Your task to perform on an android device: toggle show notifications on the lock screen Image 0: 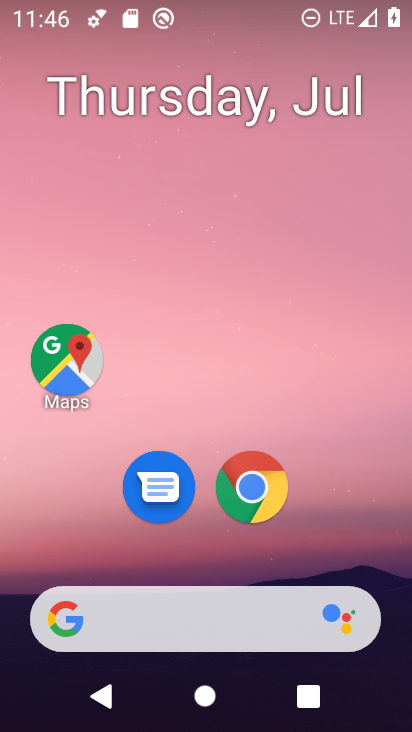
Step 0: drag from (213, 574) to (193, 196)
Your task to perform on an android device: toggle show notifications on the lock screen Image 1: 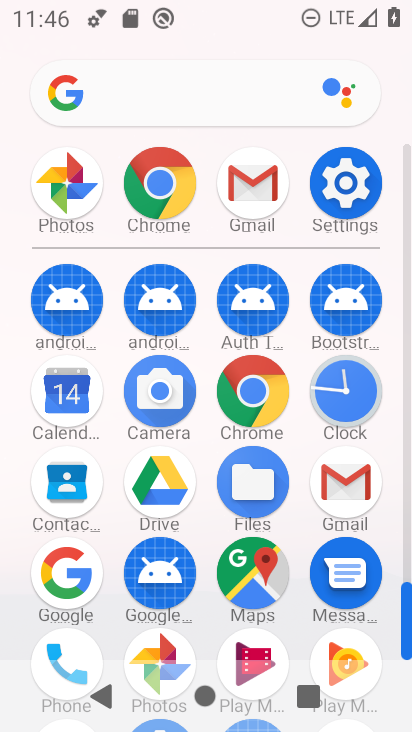
Step 1: click (357, 200)
Your task to perform on an android device: toggle show notifications on the lock screen Image 2: 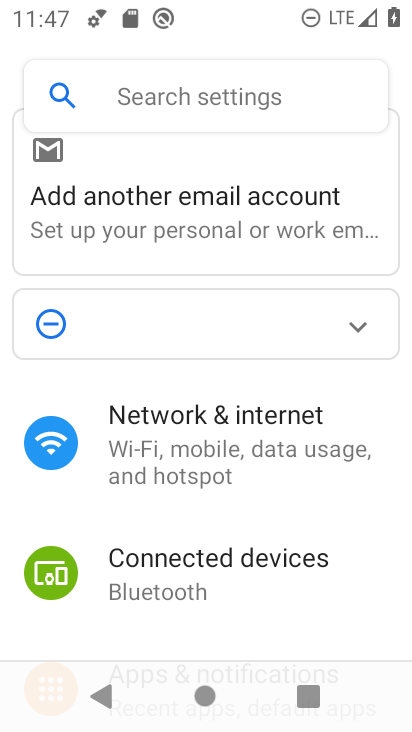
Step 2: drag from (211, 525) to (192, 196)
Your task to perform on an android device: toggle show notifications on the lock screen Image 3: 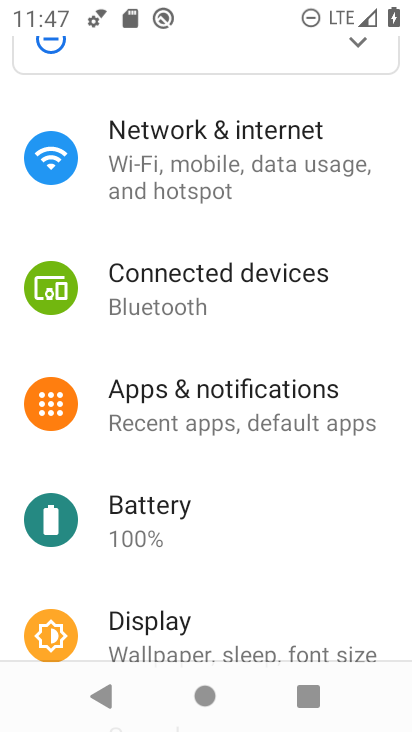
Step 3: drag from (190, 483) to (191, 445)
Your task to perform on an android device: toggle show notifications on the lock screen Image 4: 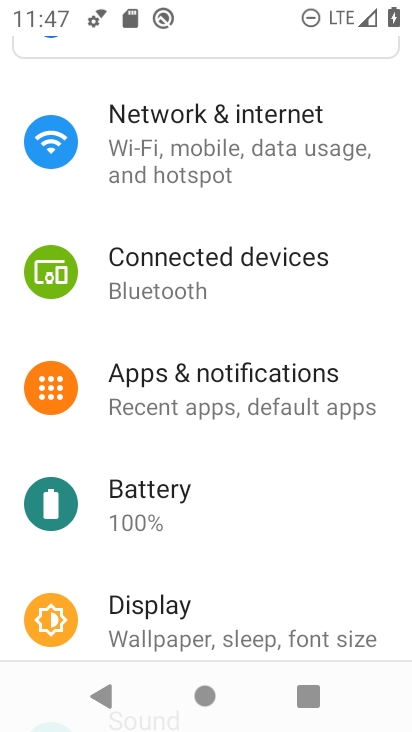
Step 4: click (234, 390)
Your task to perform on an android device: toggle show notifications on the lock screen Image 5: 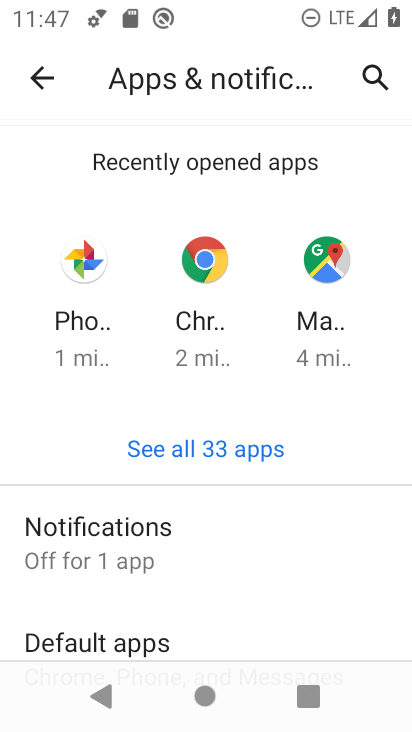
Step 5: click (137, 543)
Your task to perform on an android device: toggle show notifications on the lock screen Image 6: 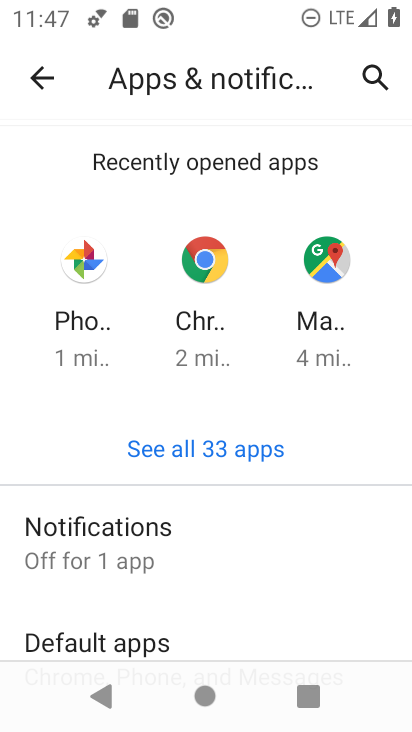
Step 6: click (135, 552)
Your task to perform on an android device: toggle show notifications on the lock screen Image 7: 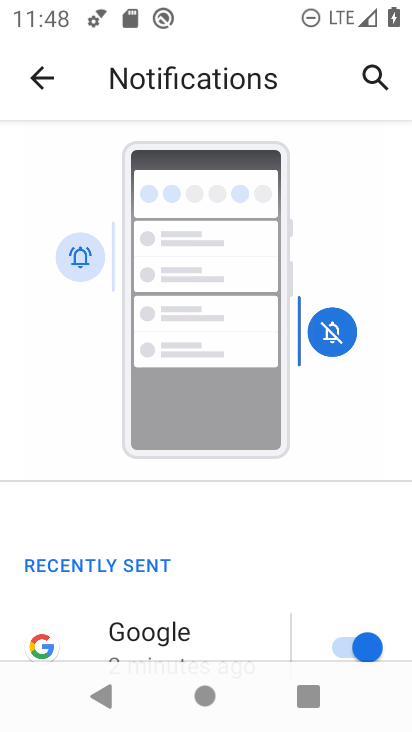
Step 7: drag from (133, 521) to (222, 79)
Your task to perform on an android device: toggle show notifications on the lock screen Image 8: 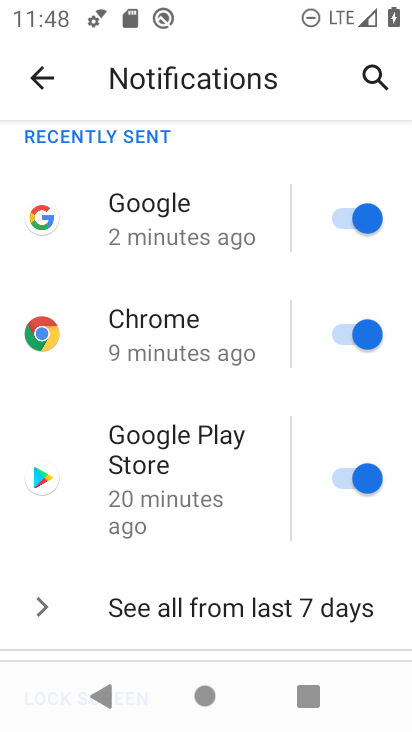
Step 8: drag from (233, 577) to (215, 228)
Your task to perform on an android device: toggle show notifications on the lock screen Image 9: 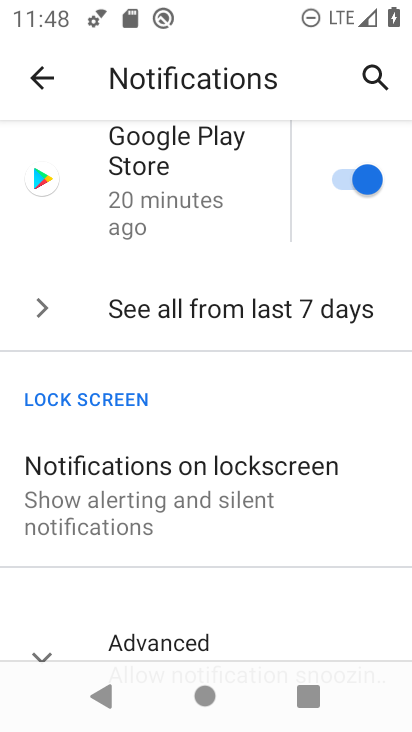
Step 9: click (241, 501)
Your task to perform on an android device: toggle show notifications on the lock screen Image 10: 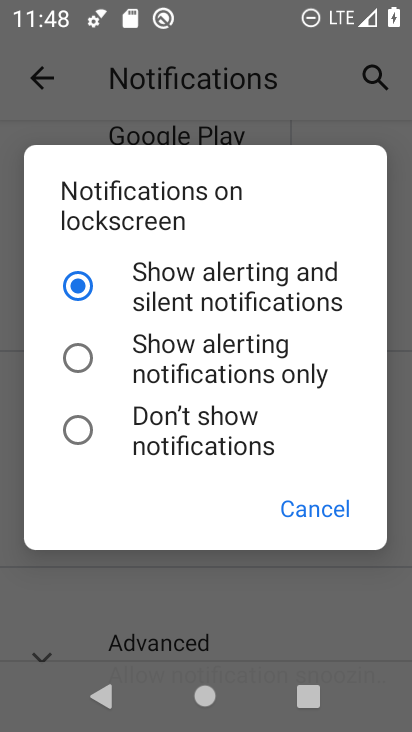
Step 10: click (81, 432)
Your task to perform on an android device: toggle show notifications on the lock screen Image 11: 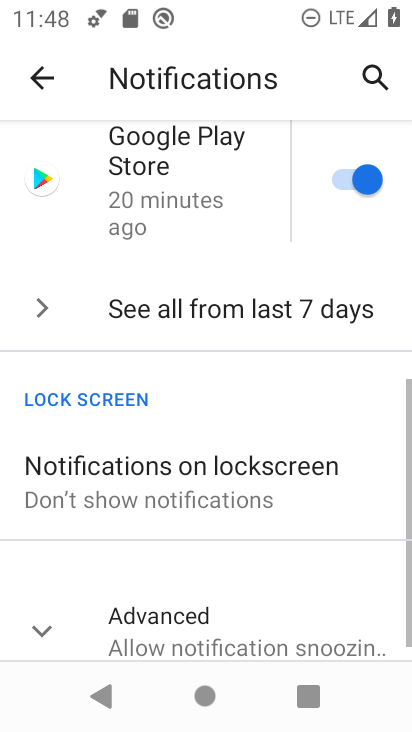
Step 11: task complete